Your task to perform on an android device: turn on translation in the chrome app Image 0: 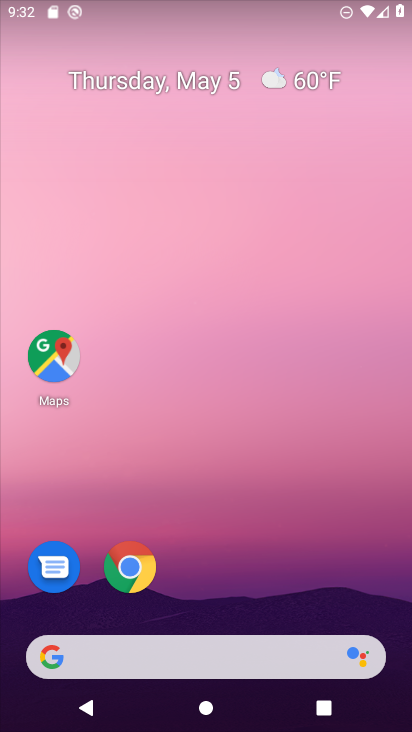
Step 0: click (130, 565)
Your task to perform on an android device: turn on translation in the chrome app Image 1: 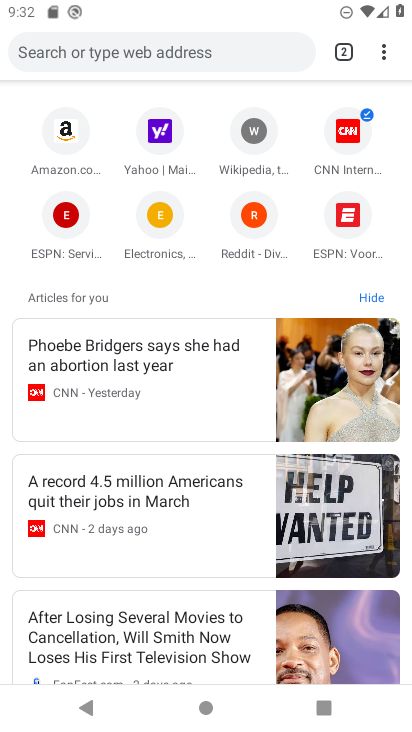
Step 1: drag from (385, 51) to (213, 432)
Your task to perform on an android device: turn on translation in the chrome app Image 2: 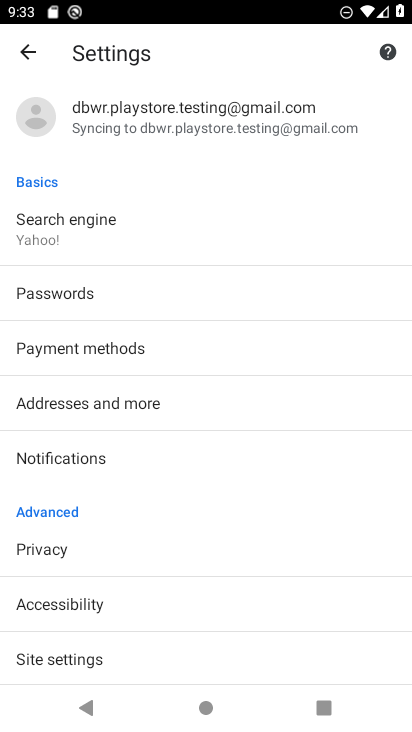
Step 2: drag from (115, 663) to (116, 407)
Your task to perform on an android device: turn on translation in the chrome app Image 3: 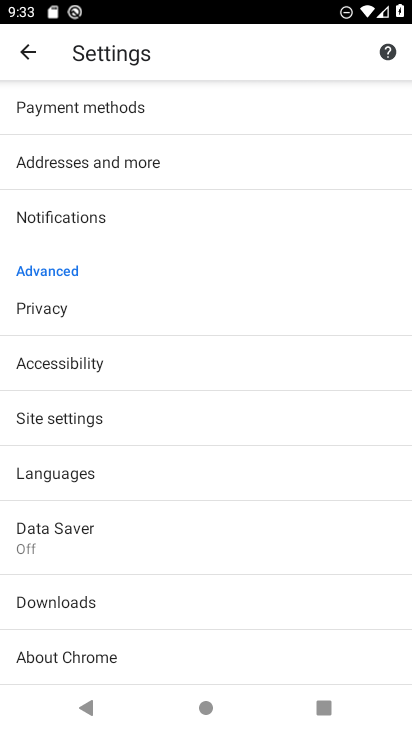
Step 3: click (70, 473)
Your task to perform on an android device: turn on translation in the chrome app Image 4: 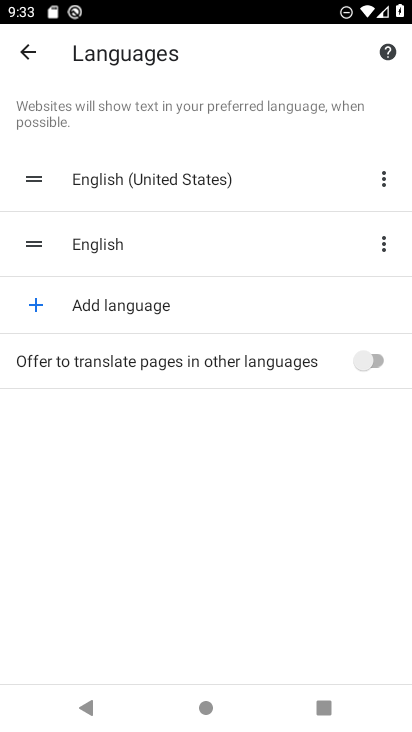
Step 4: click (381, 358)
Your task to perform on an android device: turn on translation in the chrome app Image 5: 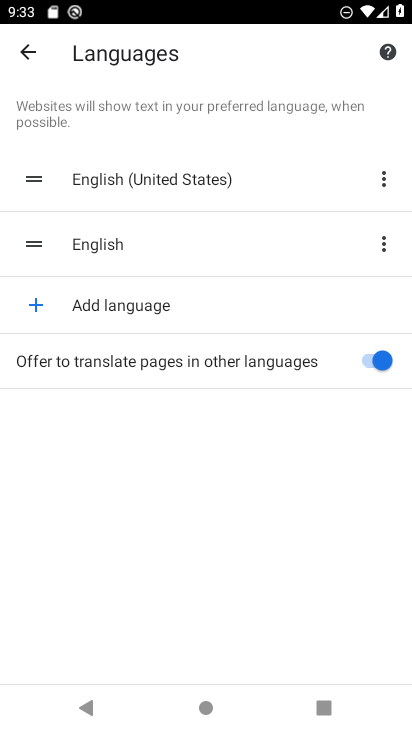
Step 5: task complete